Your task to perform on an android device: open device folders in google photos Image 0: 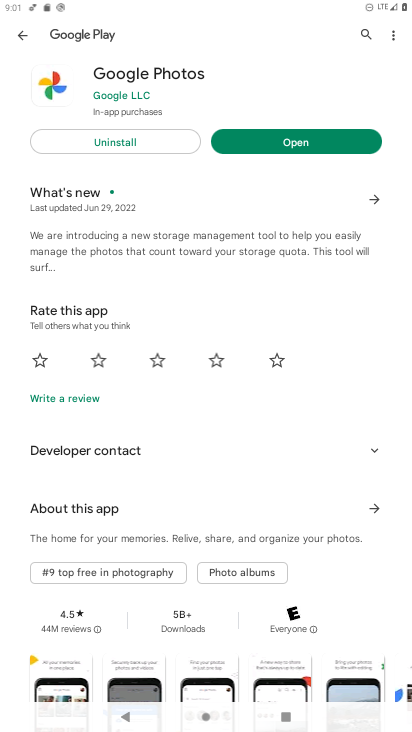
Step 0: click (258, 142)
Your task to perform on an android device: open device folders in google photos Image 1: 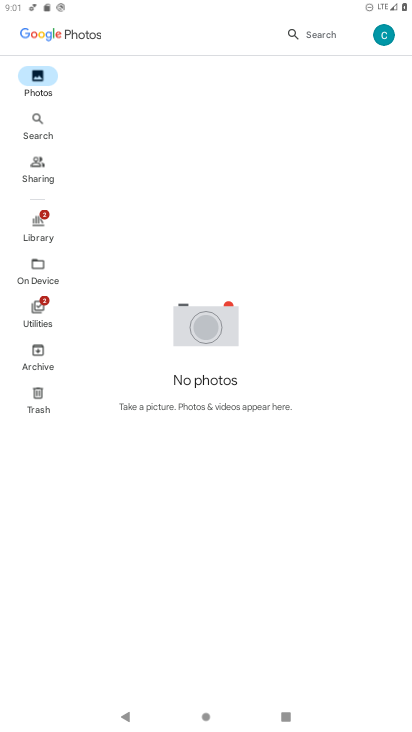
Step 1: task complete